Your task to perform on an android device: find photos in the google photos app Image 0: 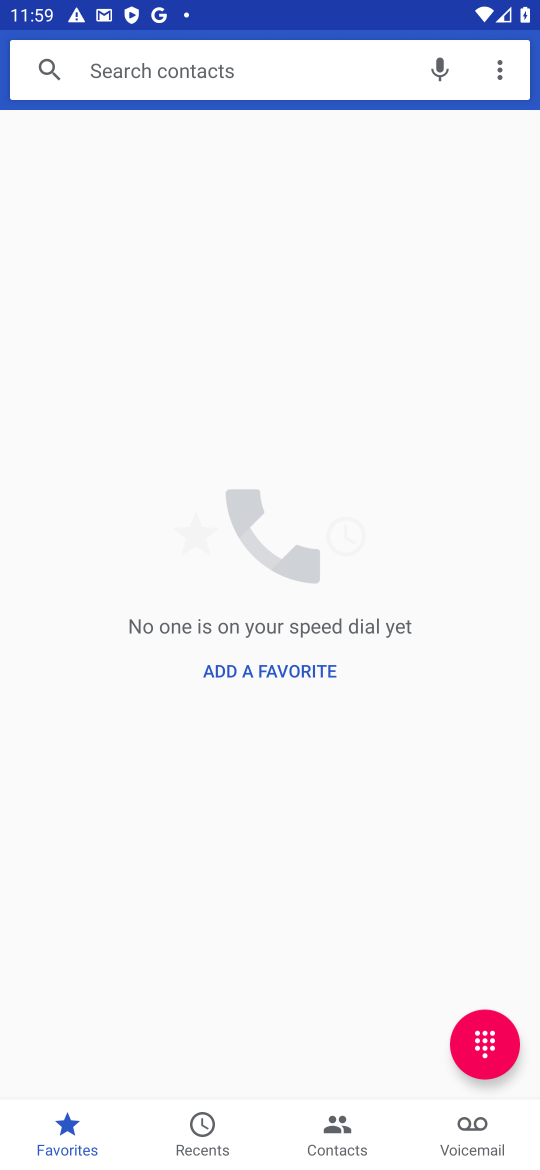
Step 0: press home button
Your task to perform on an android device: find photos in the google photos app Image 1: 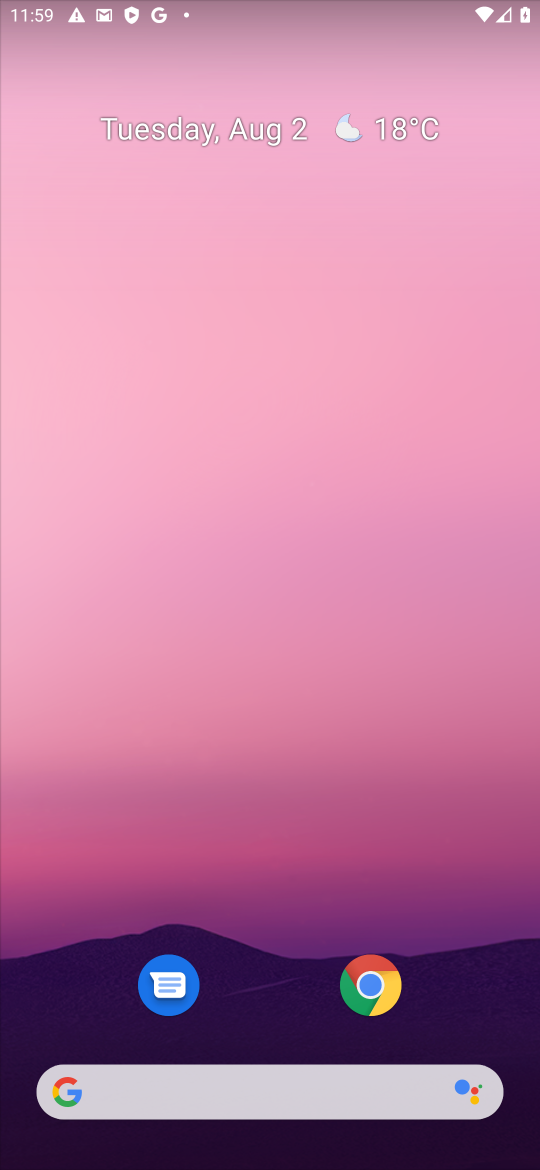
Step 1: drag from (235, 1006) to (167, 341)
Your task to perform on an android device: find photos in the google photos app Image 2: 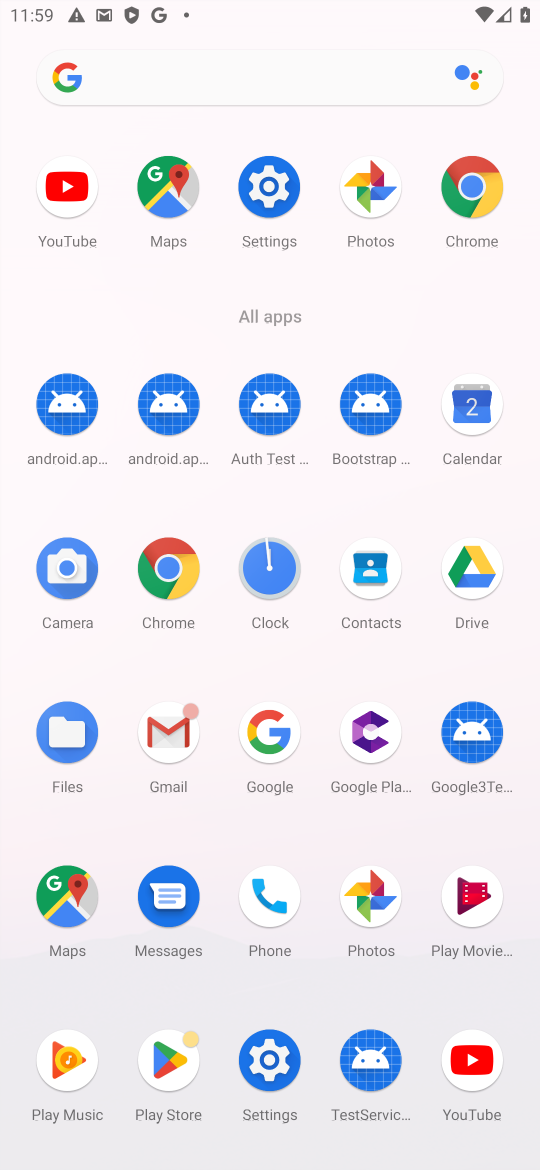
Step 2: click (356, 237)
Your task to perform on an android device: find photos in the google photos app Image 3: 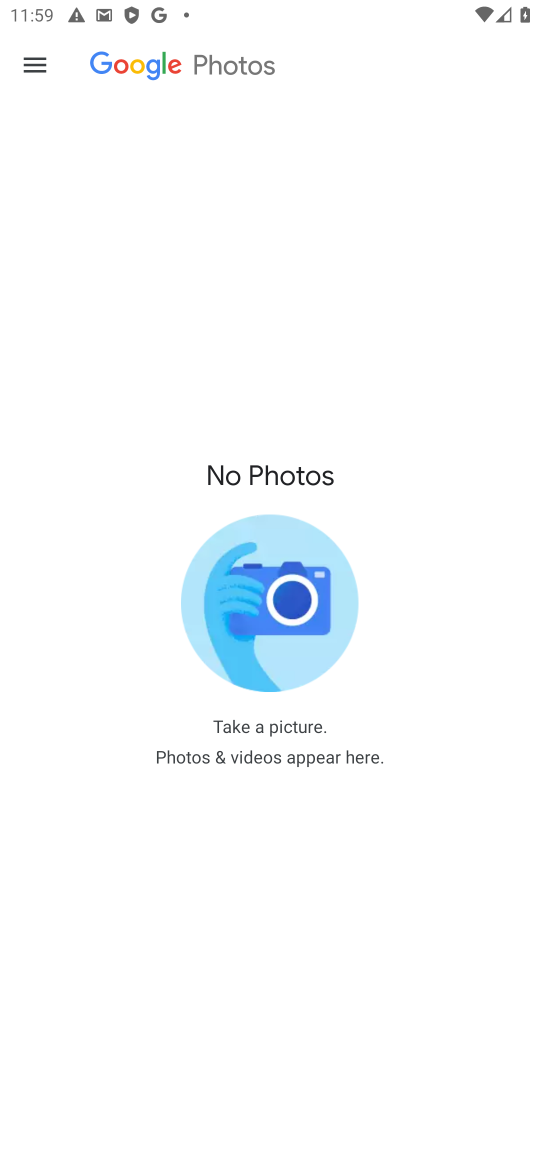
Step 3: task complete